Your task to perform on an android device: move a message to another label in the gmail app Image 0: 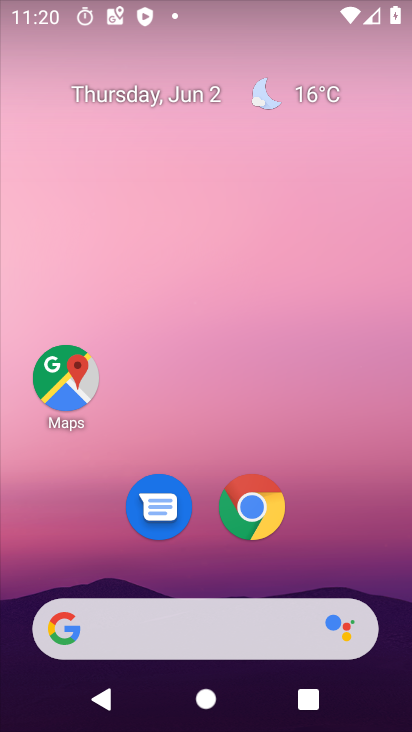
Step 0: drag from (383, 222) to (305, 28)
Your task to perform on an android device: move a message to another label in the gmail app Image 1: 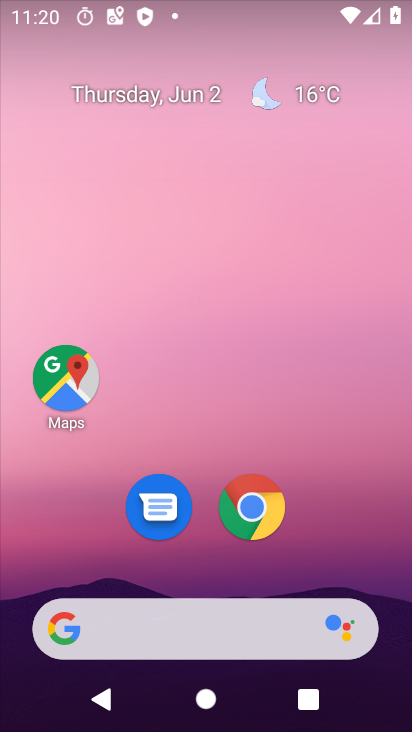
Step 1: drag from (395, 616) to (298, 1)
Your task to perform on an android device: move a message to another label in the gmail app Image 2: 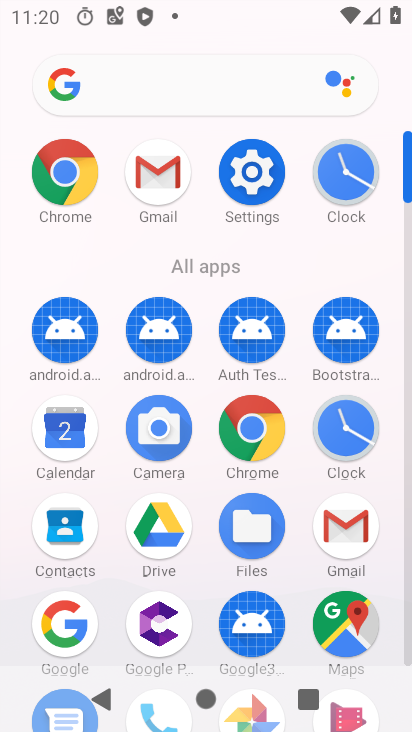
Step 2: click (345, 511)
Your task to perform on an android device: move a message to another label in the gmail app Image 3: 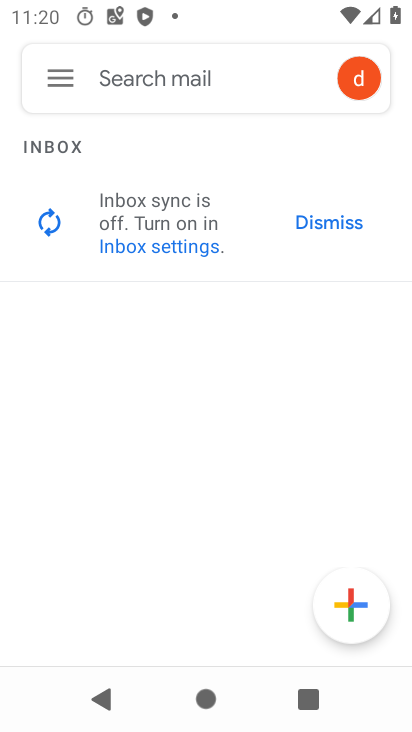
Step 3: task complete